Your task to perform on an android device: turn off priority inbox in the gmail app Image 0: 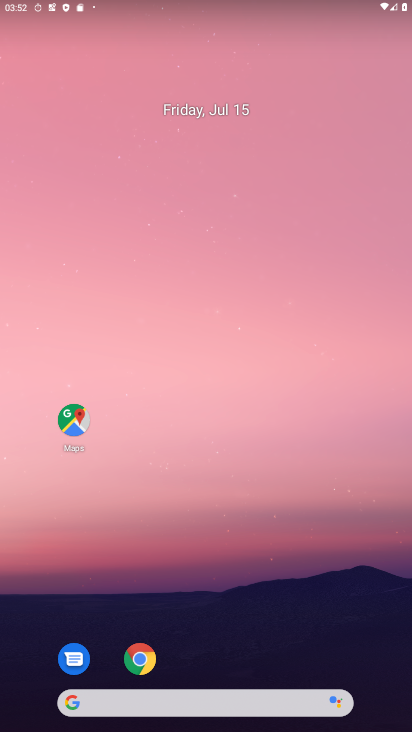
Step 0: drag from (222, 598) to (263, 65)
Your task to perform on an android device: turn off priority inbox in the gmail app Image 1: 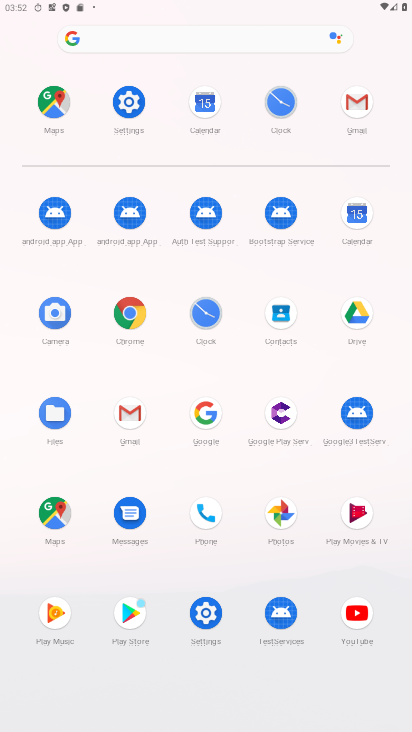
Step 1: click (356, 106)
Your task to perform on an android device: turn off priority inbox in the gmail app Image 2: 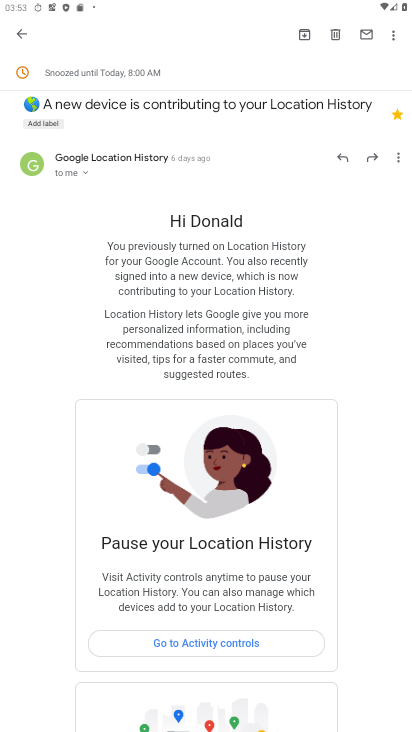
Step 2: click (15, 34)
Your task to perform on an android device: turn off priority inbox in the gmail app Image 3: 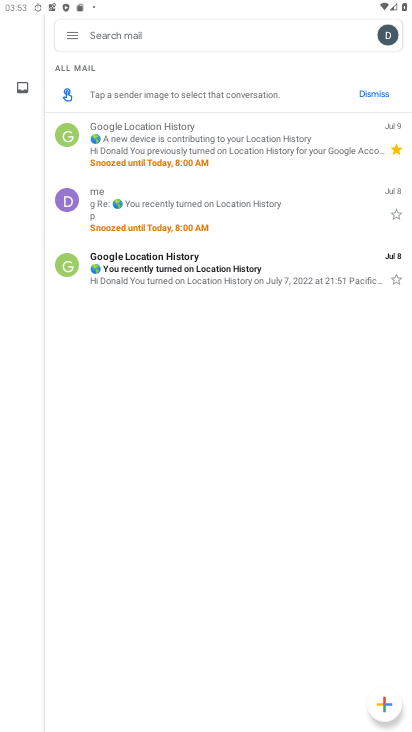
Step 3: click (71, 39)
Your task to perform on an android device: turn off priority inbox in the gmail app Image 4: 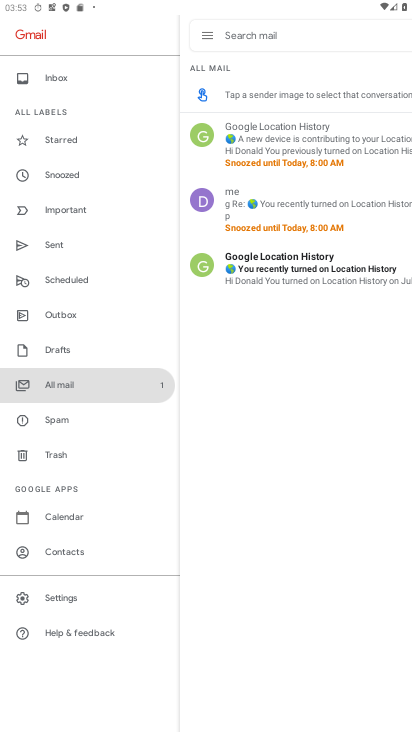
Step 4: click (64, 594)
Your task to perform on an android device: turn off priority inbox in the gmail app Image 5: 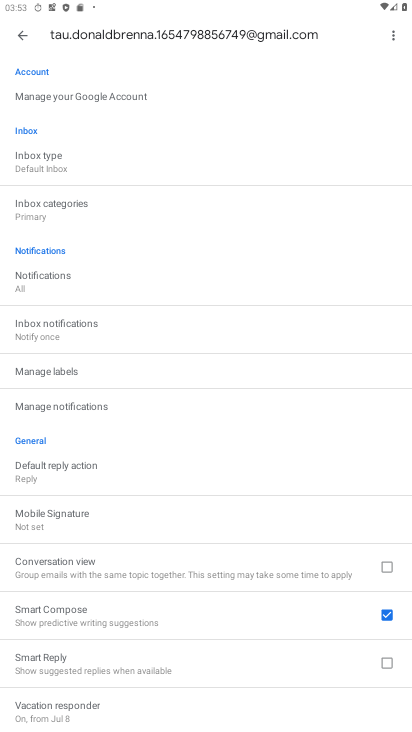
Step 5: click (73, 157)
Your task to perform on an android device: turn off priority inbox in the gmail app Image 6: 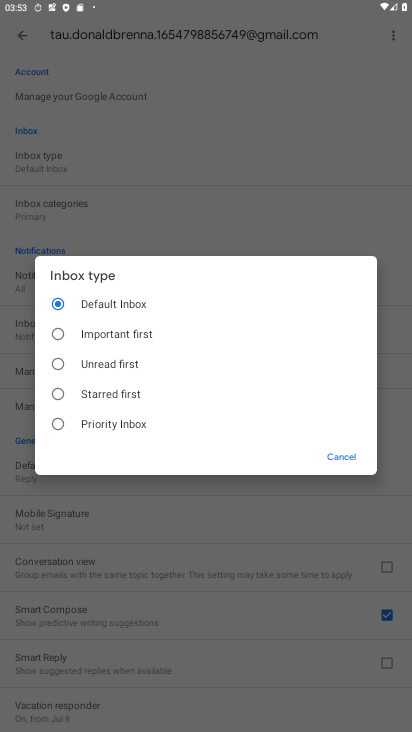
Step 6: click (142, 308)
Your task to perform on an android device: turn off priority inbox in the gmail app Image 7: 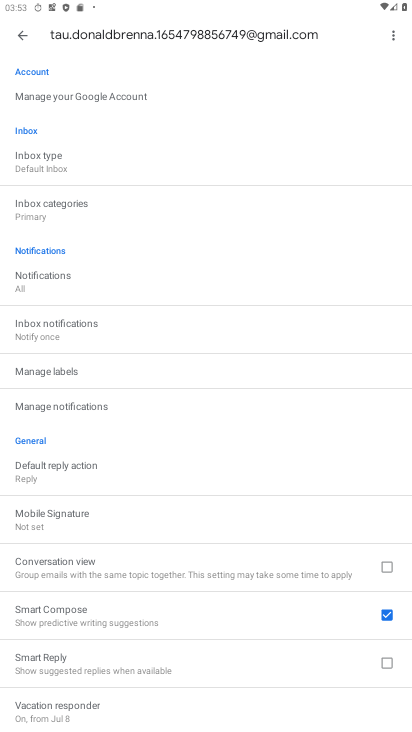
Step 7: task complete